Your task to perform on an android device: move an email to a new category in the gmail app Image 0: 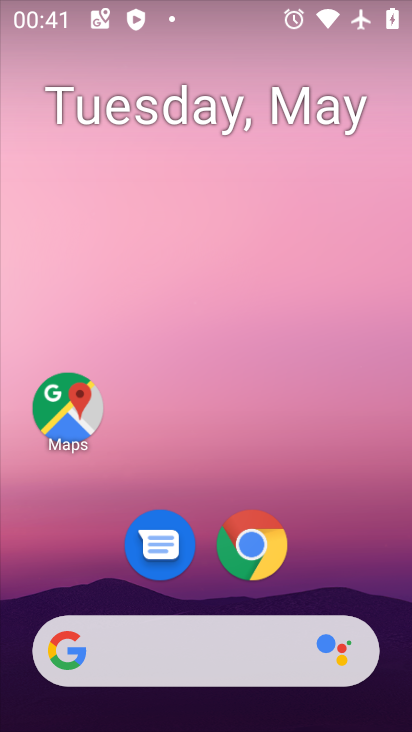
Step 0: drag from (332, 562) to (315, 0)
Your task to perform on an android device: move an email to a new category in the gmail app Image 1: 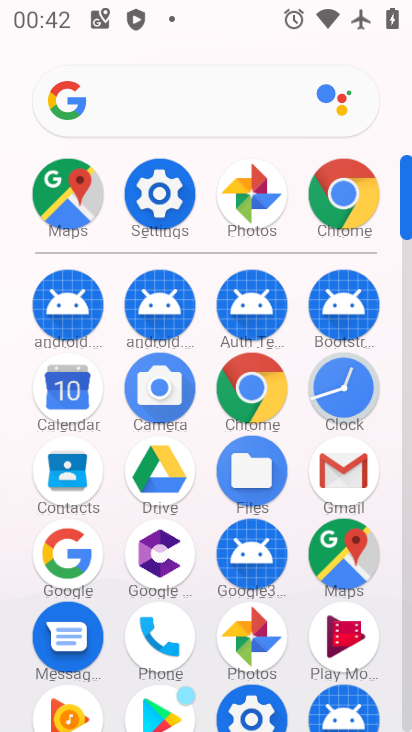
Step 1: click (337, 479)
Your task to perform on an android device: move an email to a new category in the gmail app Image 2: 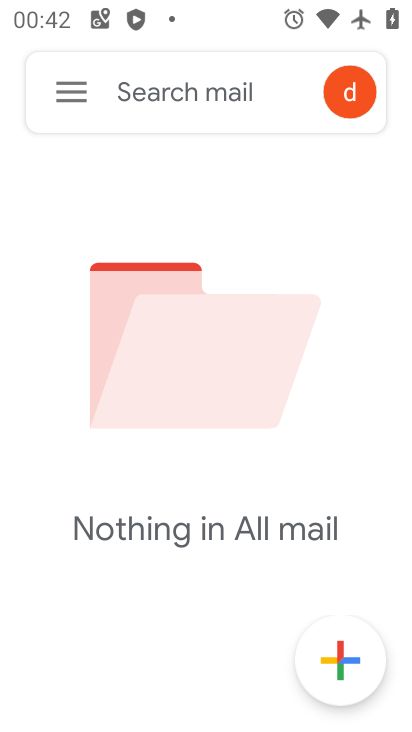
Step 2: task complete